Your task to perform on an android device: turn on improve location accuracy Image 0: 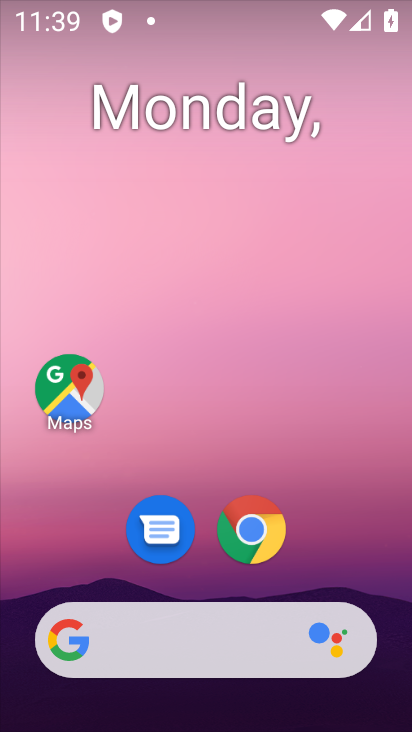
Step 0: drag from (129, 569) to (272, 117)
Your task to perform on an android device: turn on improve location accuracy Image 1: 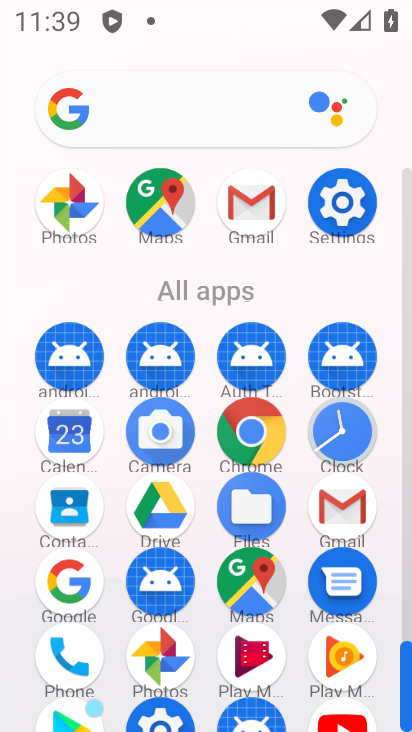
Step 1: drag from (190, 612) to (273, 301)
Your task to perform on an android device: turn on improve location accuracy Image 2: 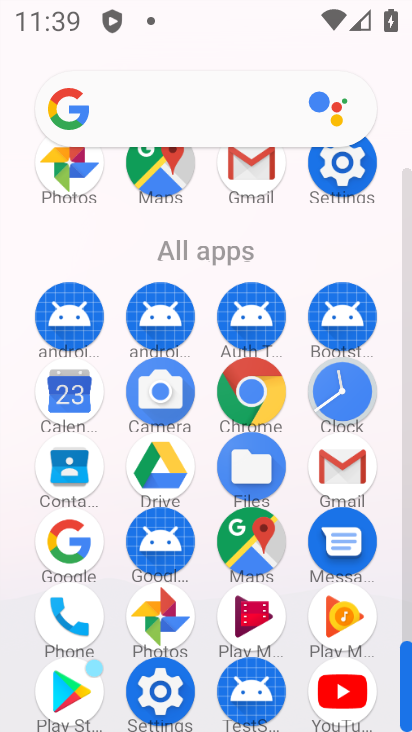
Step 2: click (159, 695)
Your task to perform on an android device: turn on improve location accuracy Image 3: 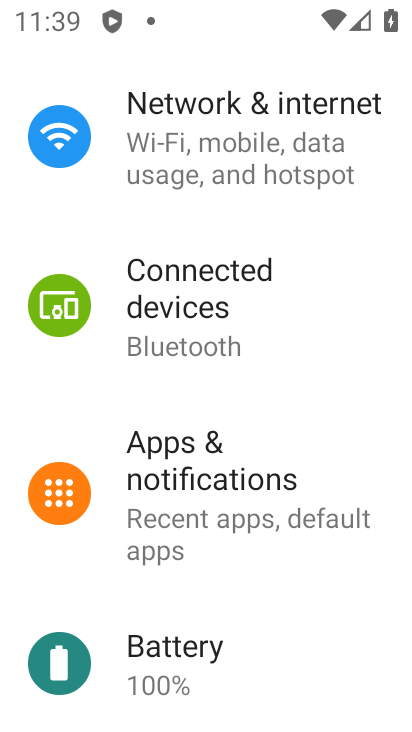
Step 3: drag from (291, 632) to (361, 186)
Your task to perform on an android device: turn on improve location accuracy Image 4: 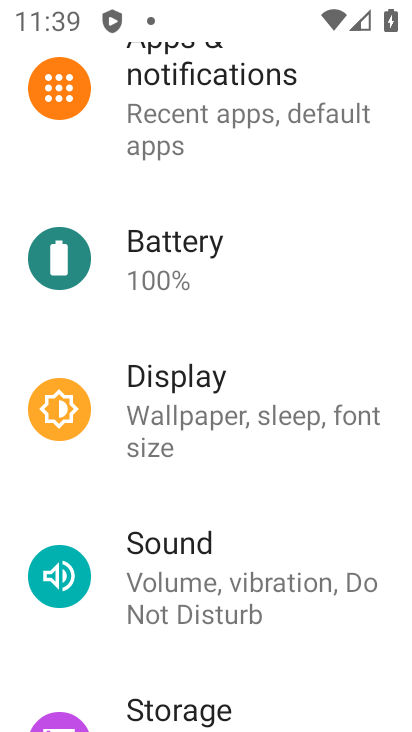
Step 4: drag from (211, 641) to (317, 224)
Your task to perform on an android device: turn on improve location accuracy Image 5: 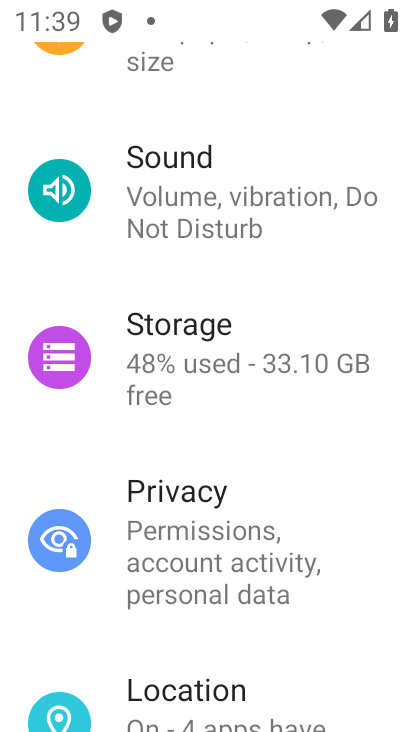
Step 5: drag from (194, 635) to (262, 365)
Your task to perform on an android device: turn on improve location accuracy Image 6: 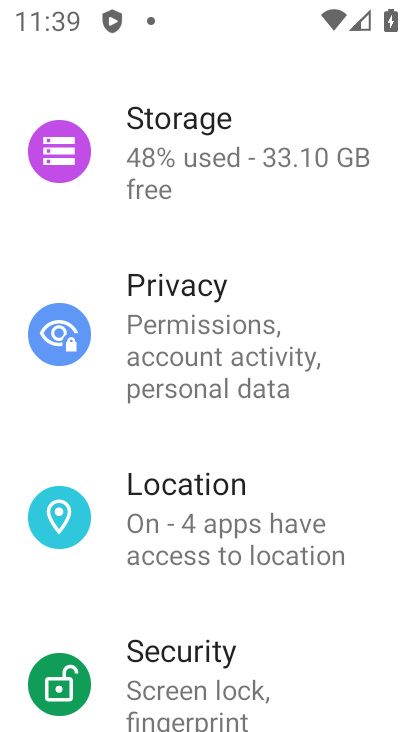
Step 6: click (242, 510)
Your task to perform on an android device: turn on improve location accuracy Image 7: 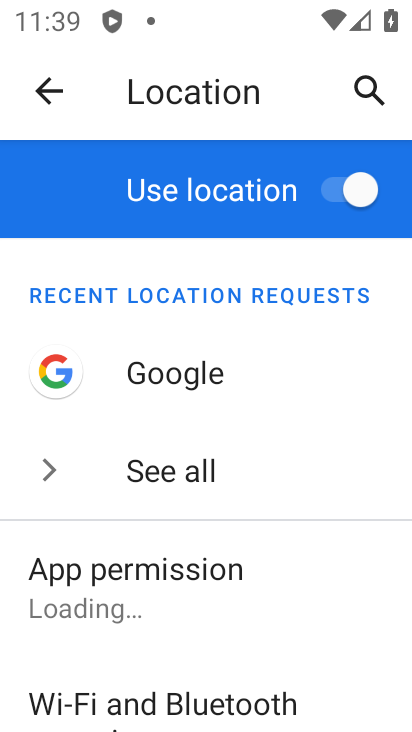
Step 7: drag from (205, 652) to (295, 291)
Your task to perform on an android device: turn on improve location accuracy Image 8: 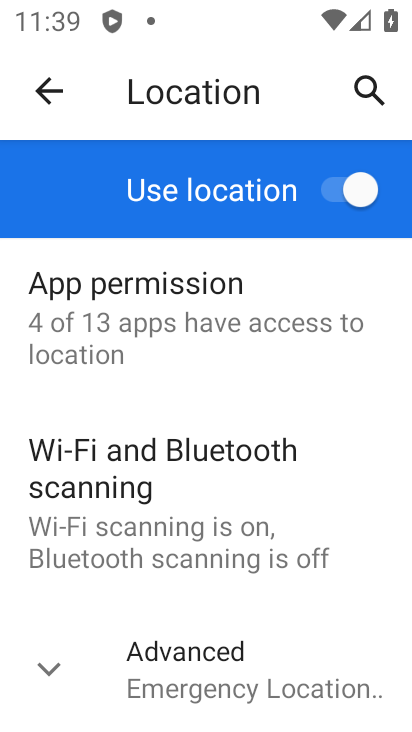
Step 8: click (210, 653)
Your task to perform on an android device: turn on improve location accuracy Image 9: 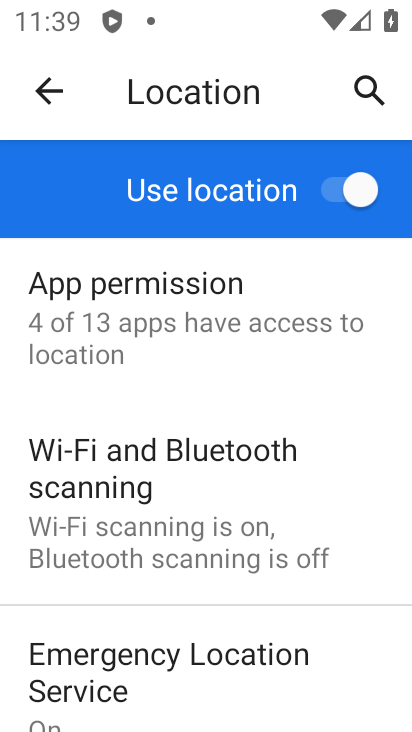
Step 9: drag from (213, 648) to (293, 286)
Your task to perform on an android device: turn on improve location accuracy Image 10: 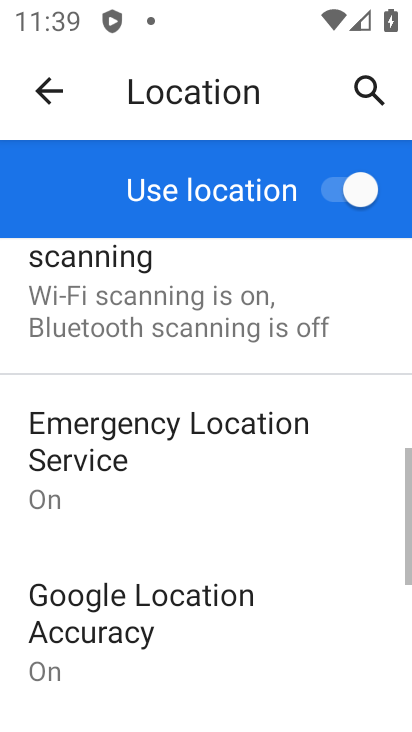
Step 10: drag from (187, 678) to (267, 379)
Your task to perform on an android device: turn on improve location accuracy Image 11: 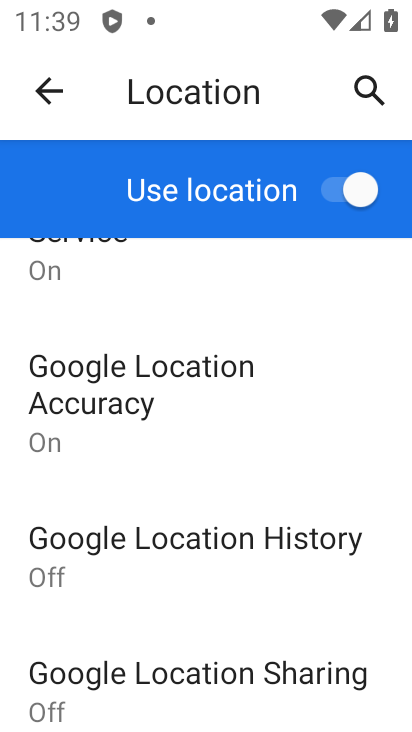
Step 11: click (247, 393)
Your task to perform on an android device: turn on improve location accuracy Image 12: 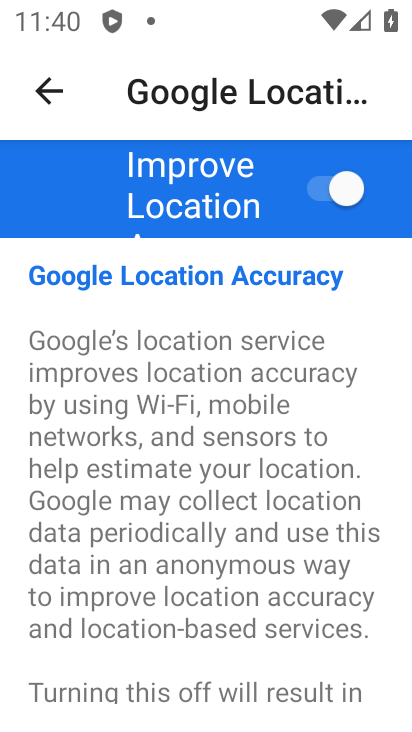
Step 12: task complete